Your task to perform on an android device: open app "Gmail" Image 0: 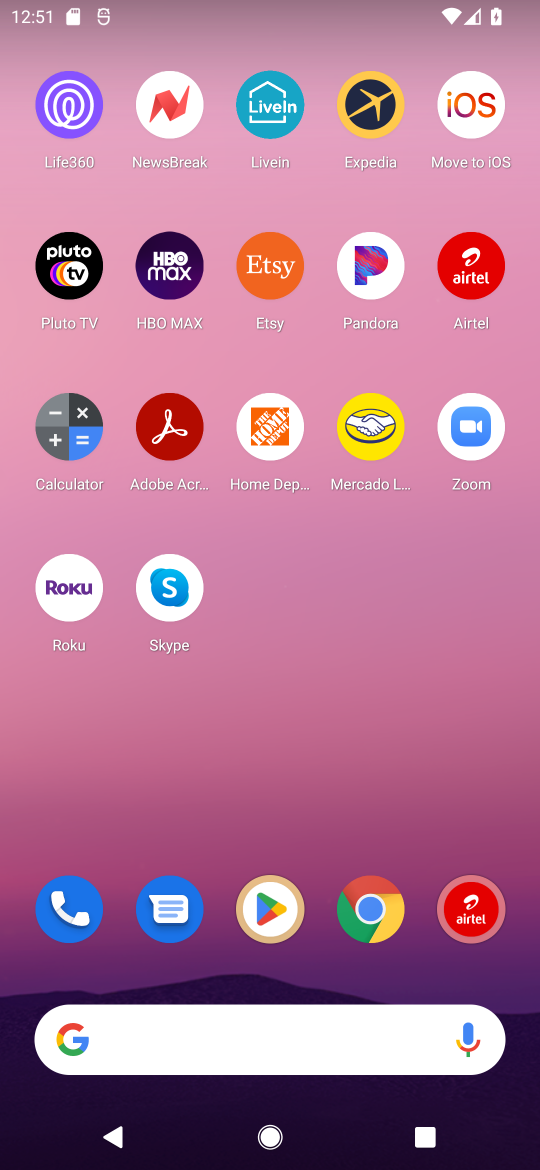
Step 0: click (261, 899)
Your task to perform on an android device: open app "Gmail" Image 1: 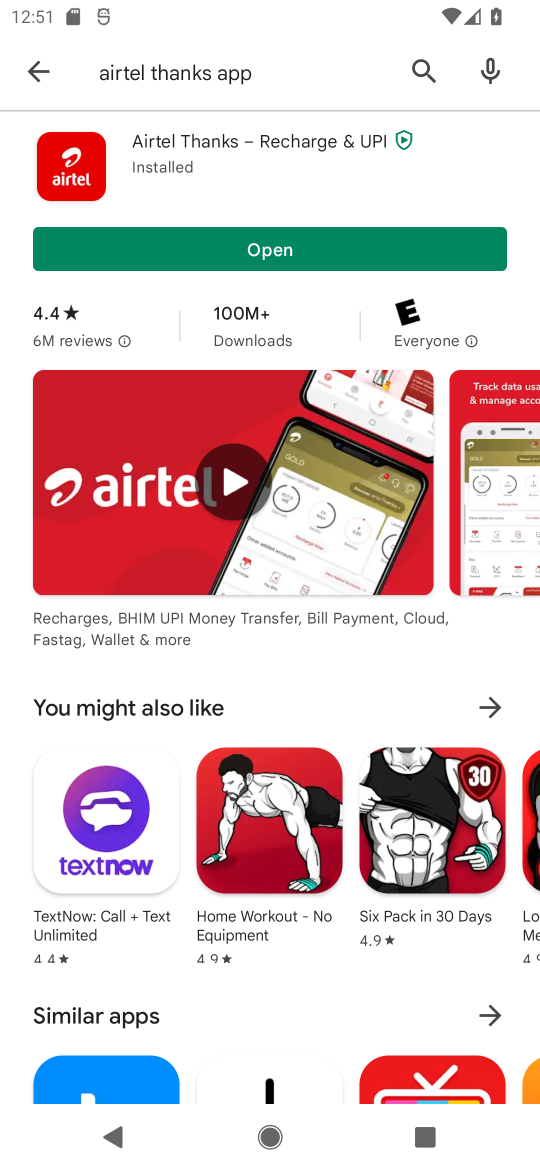
Step 1: press home button
Your task to perform on an android device: open app "Gmail" Image 2: 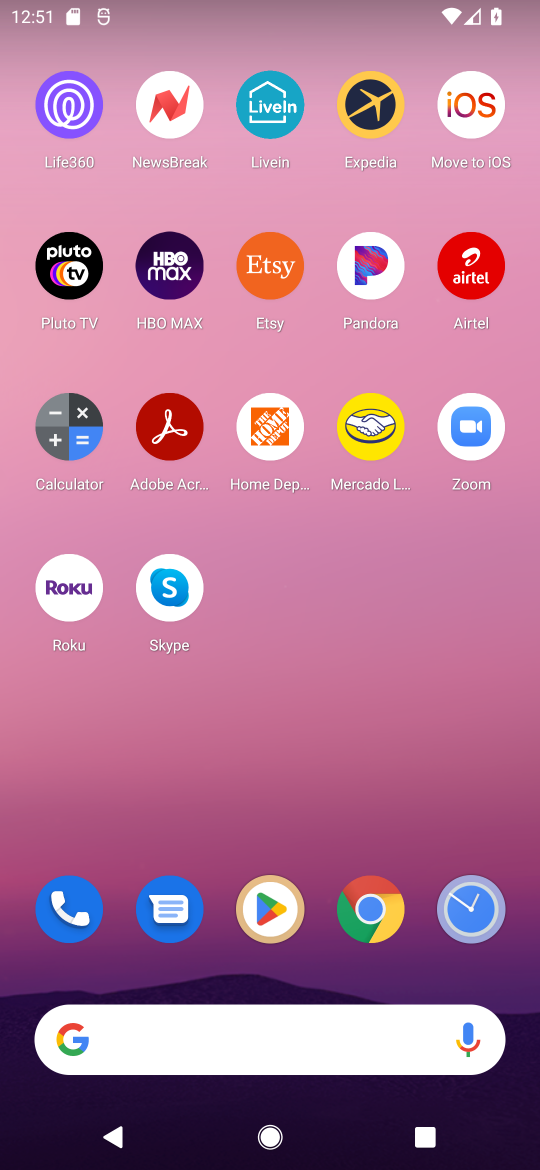
Step 2: drag from (265, 728) to (413, 0)
Your task to perform on an android device: open app "Gmail" Image 3: 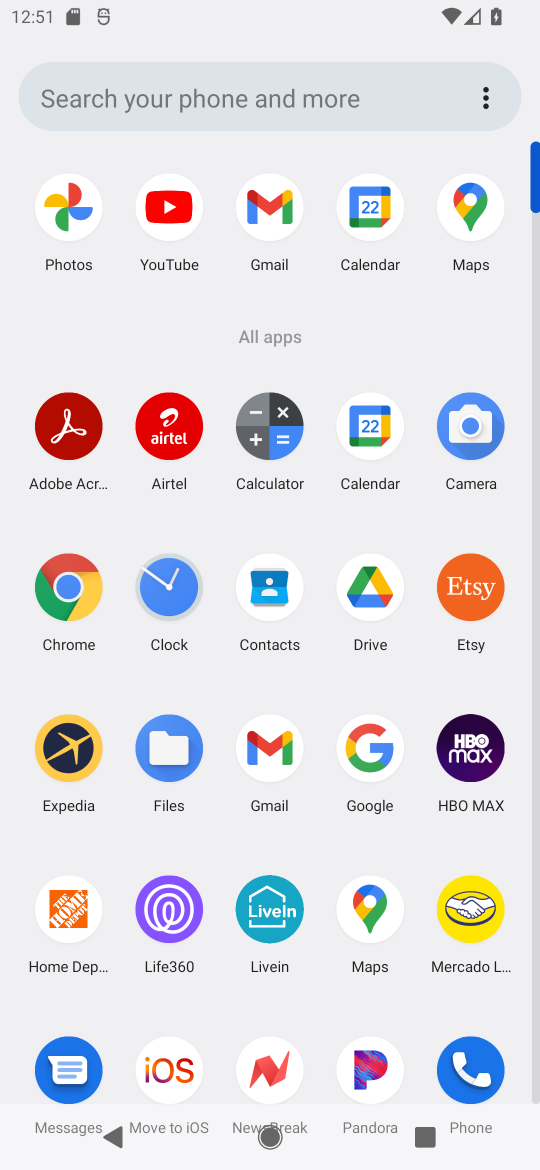
Step 3: click (279, 205)
Your task to perform on an android device: open app "Gmail" Image 4: 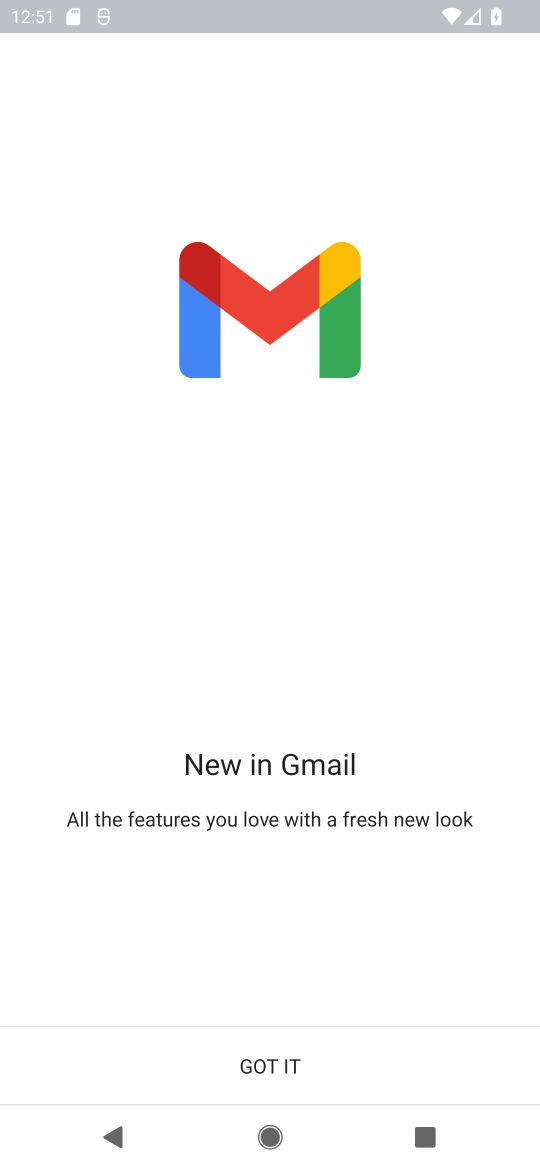
Step 4: task complete